Your task to perform on an android device: allow notifications from all sites in the chrome app Image 0: 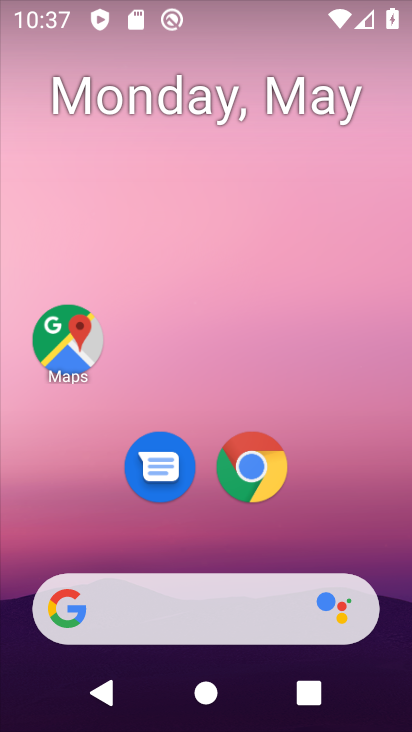
Step 0: drag from (159, 727) to (234, 3)
Your task to perform on an android device: allow notifications from all sites in the chrome app Image 1: 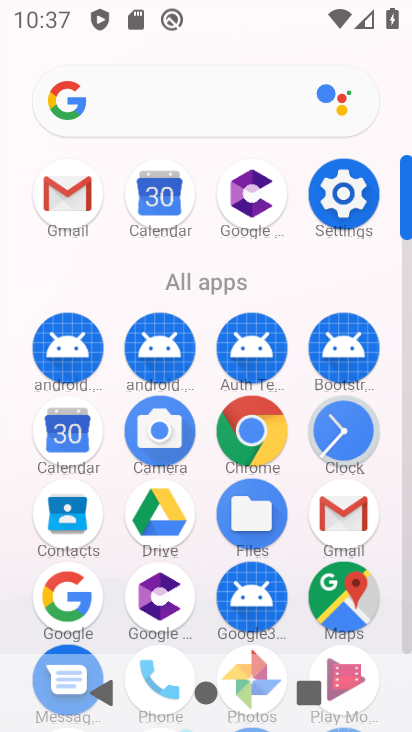
Step 1: drag from (110, 556) to (94, 208)
Your task to perform on an android device: allow notifications from all sites in the chrome app Image 2: 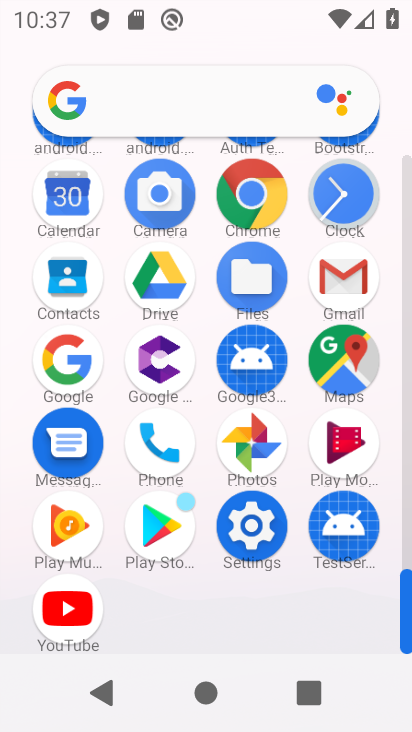
Step 2: click (253, 206)
Your task to perform on an android device: allow notifications from all sites in the chrome app Image 3: 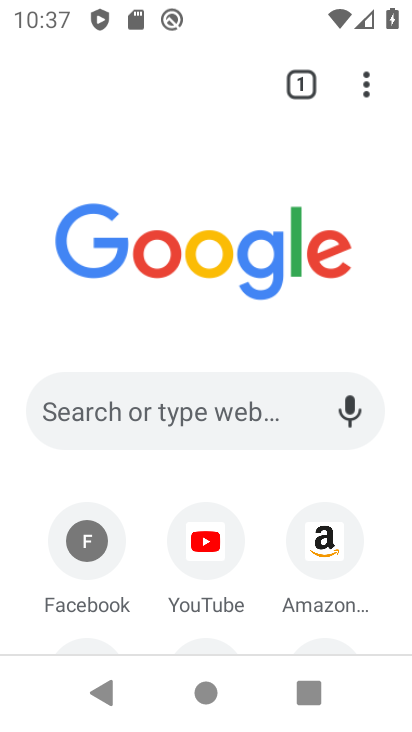
Step 3: click (362, 88)
Your task to perform on an android device: allow notifications from all sites in the chrome app Image 4: 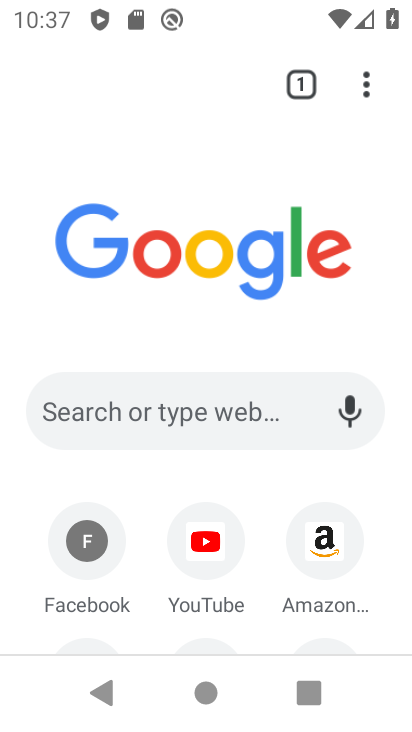
Step 4: click (371, 84)
Your task to perform on an android device: allow notifications from all sites in the chrome app Image 5: 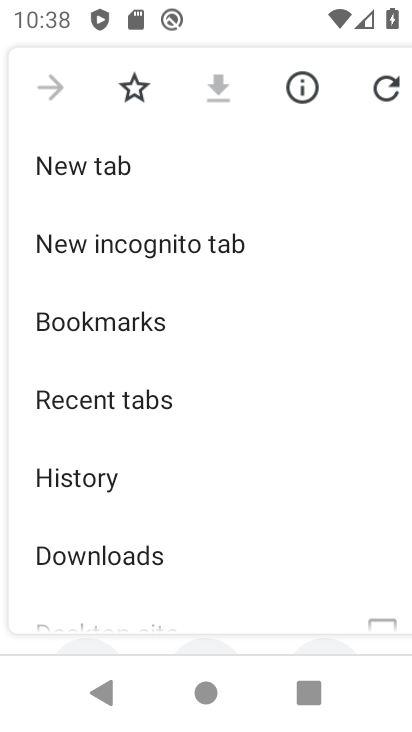
Step 5: drag from (192, 544) to (208, 173)
Your task to perform on an android device: allow notifications from all sites in the chrome app Image 6: 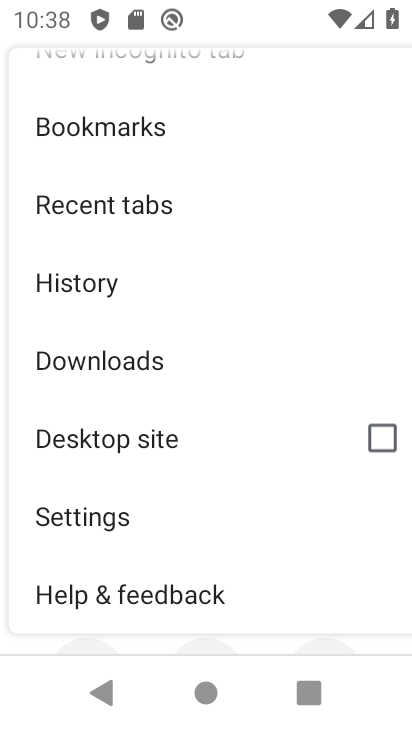
Step 6: click (123, 535)
Your task to perform on an android device: allow notifications from all sites in the chrome app Image 7: 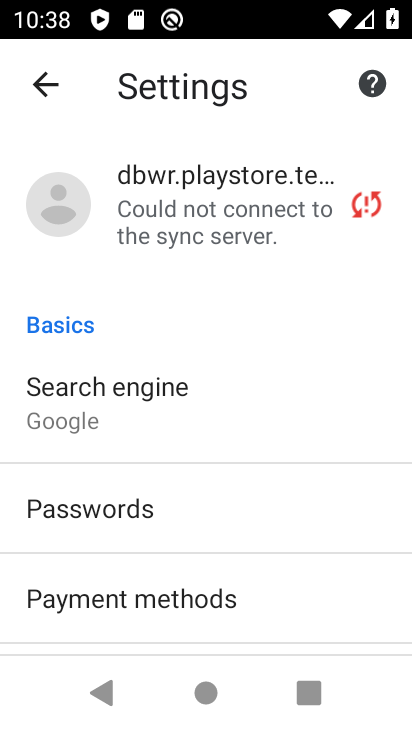
Step 7: drag from (271, 587) to (295, 255)
Your task to perform on an android device: allow notifications from all sites in the chrome app Image 8: 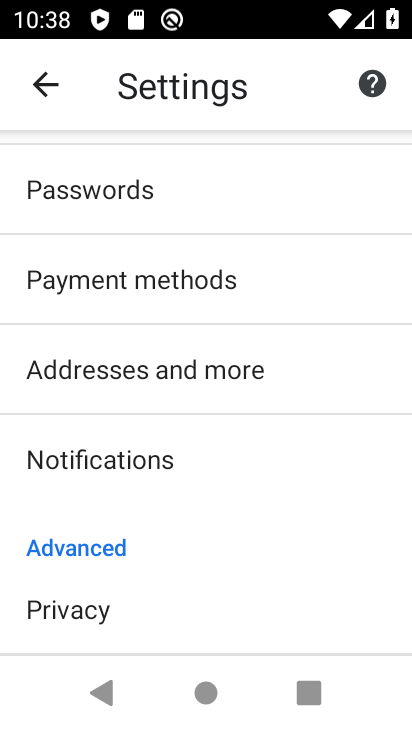
Step 8: click (165, 472)
Your task to perform on an android device: allow notifications from all sites in the chrome app Image 9: 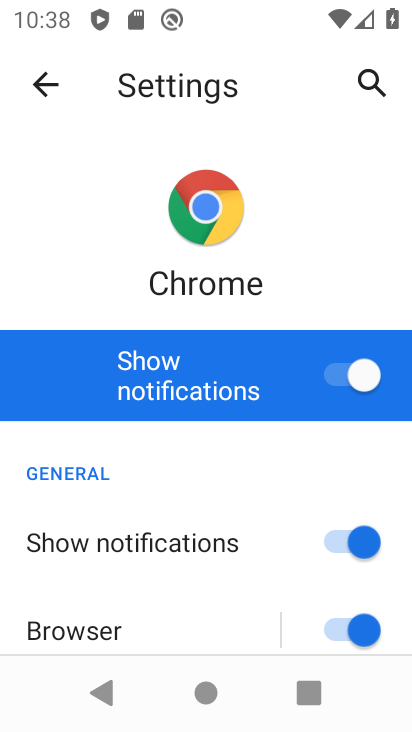
Step 9: click (284, 172)
Your task to perform on an android device: allow notifications from all sites in the chrome app Image 10: 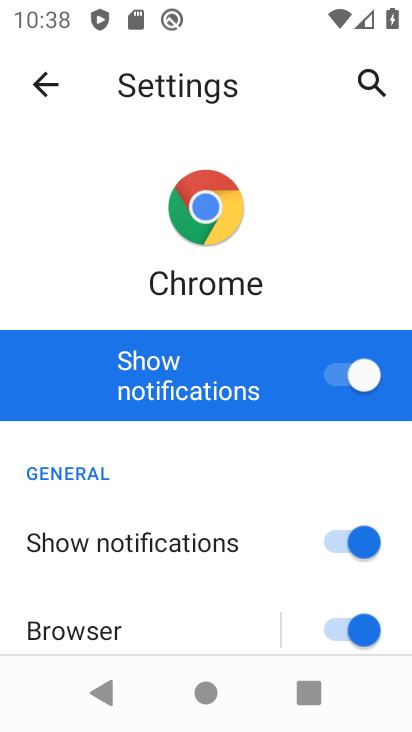
Step 10: drag from (170, 589) to (180, 179)
Your task to perform on an android device: allow notifications from all sites in the chrome app Image 11: 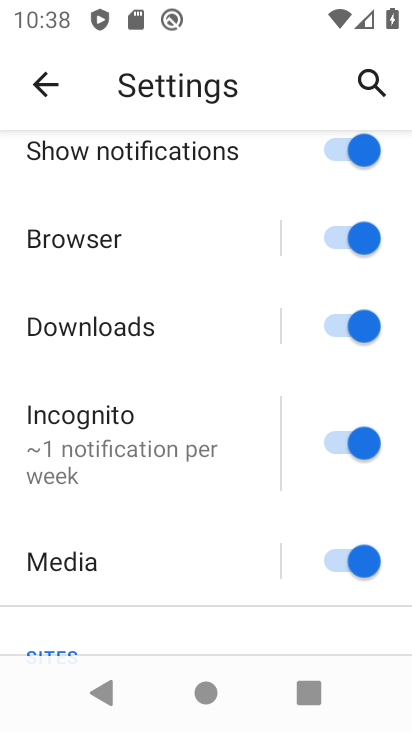
Step 11: drag from (208, 494) to (217, 119)
Your task to perform on an android device: allow notifications from all sites in the chrome app Image 12: 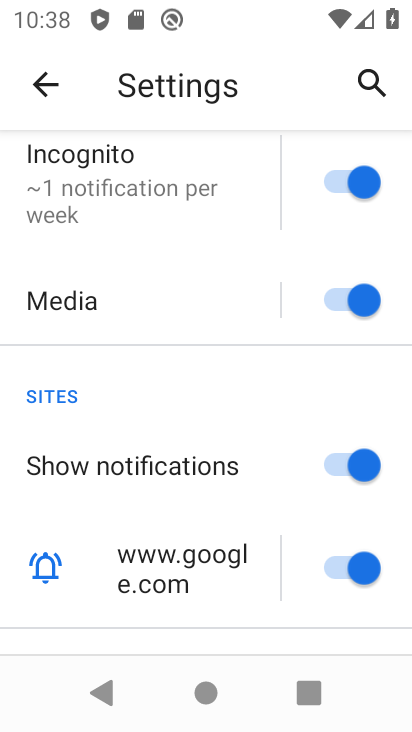
Step 12: drag from (231, 617) to (239, 222)
Your task to perform on an android device: allow notifications from all sites in the chrome app Image 13: 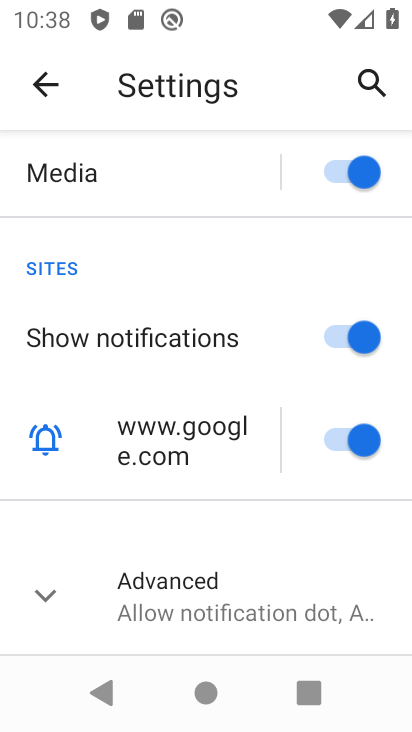
Step 13: click (221, 613)
Your task to perform on an android device: allow notifications from all sites in the chrome app Image 14: 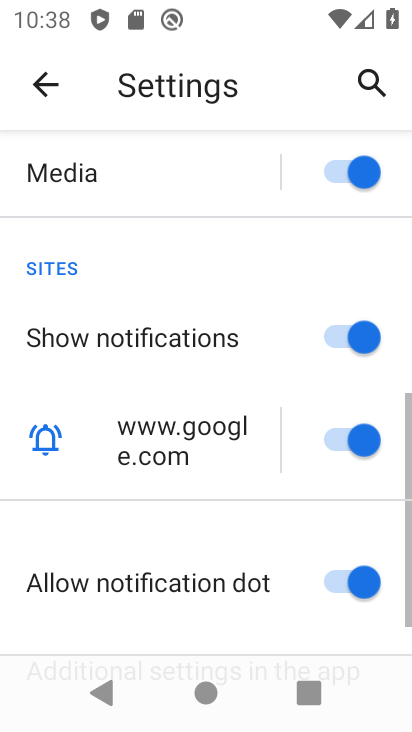
Step 14: task complete